Your task to perform on an android device: Open battery settings Image 0: 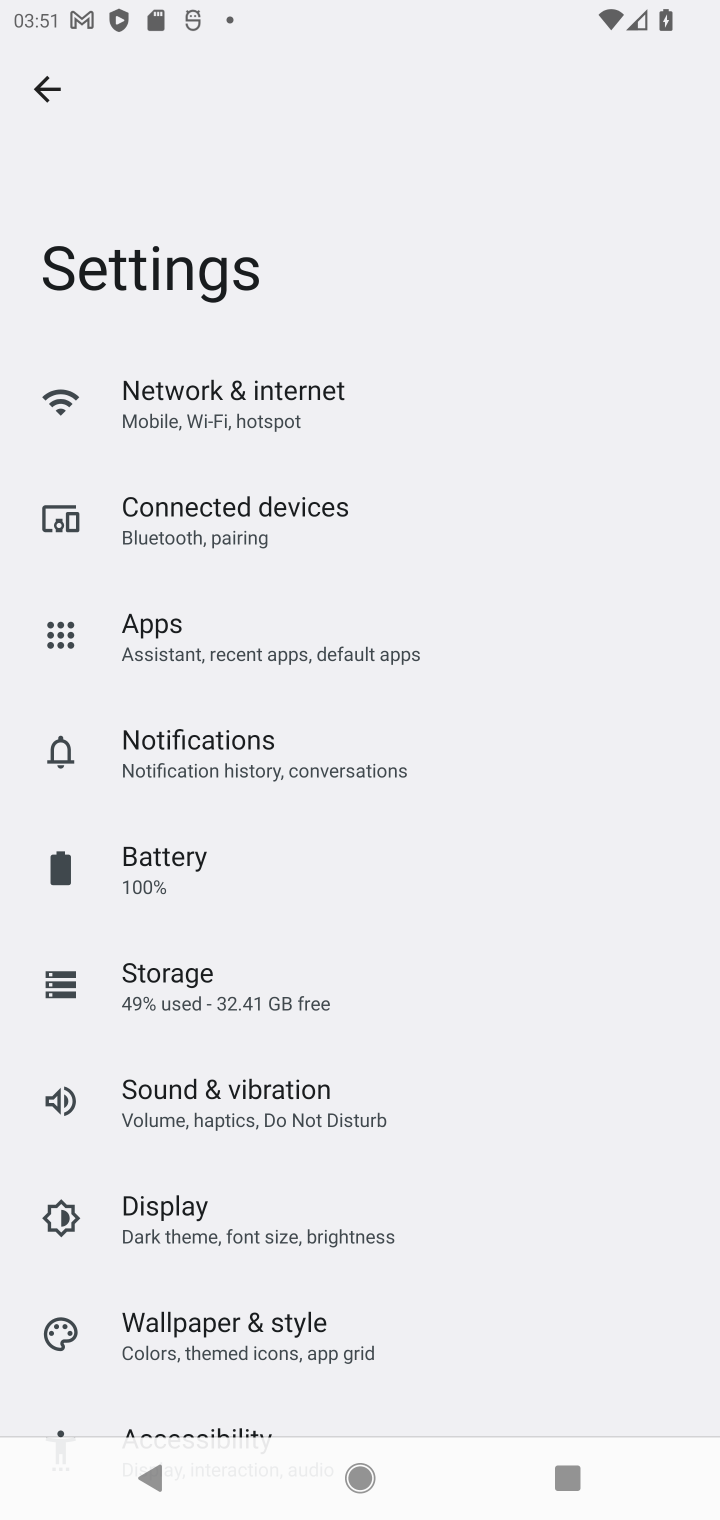
Step 0: click (272, 876)
Your task to perform on an android device: Open battery settings Image 1: 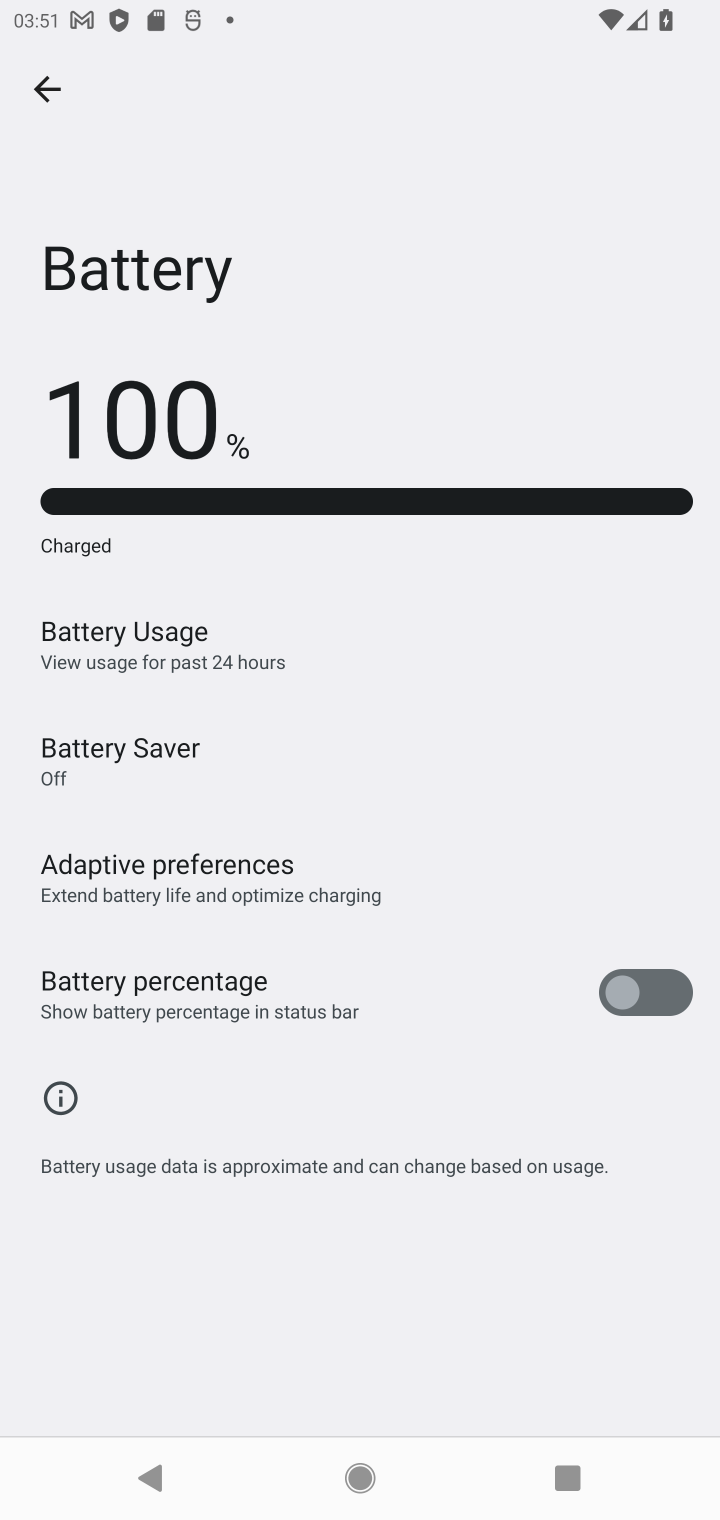
Step 1: task complete